Your task to perform on an android device: open device folders in google photos Image 0: 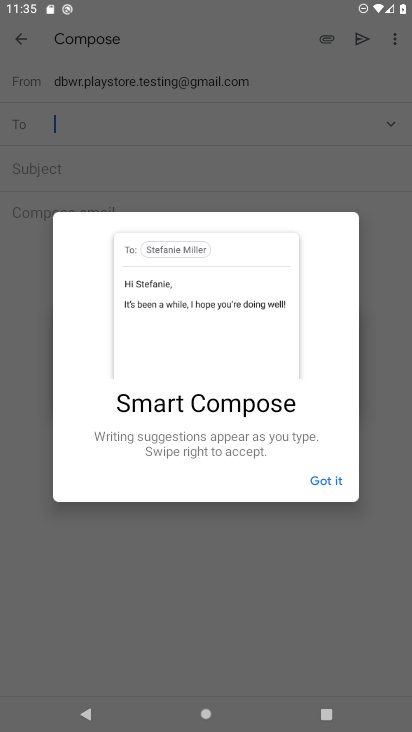
Step 0: press home button
Your task to perform on an android device: open device folders in google photos Image 1: 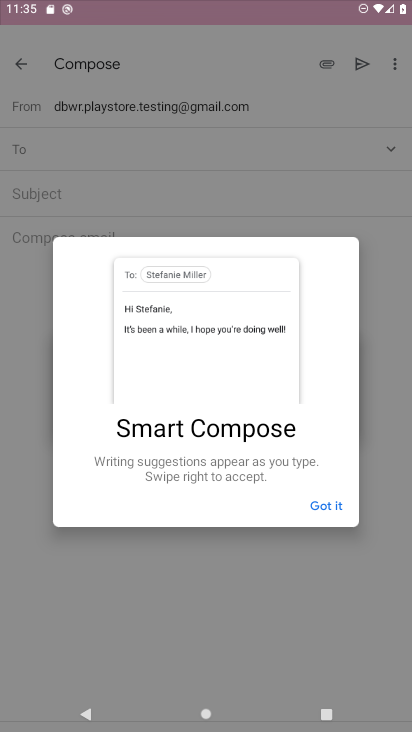
Step 1: press home button
Your task to perform on an android device: open device folders in google photos Image 2: 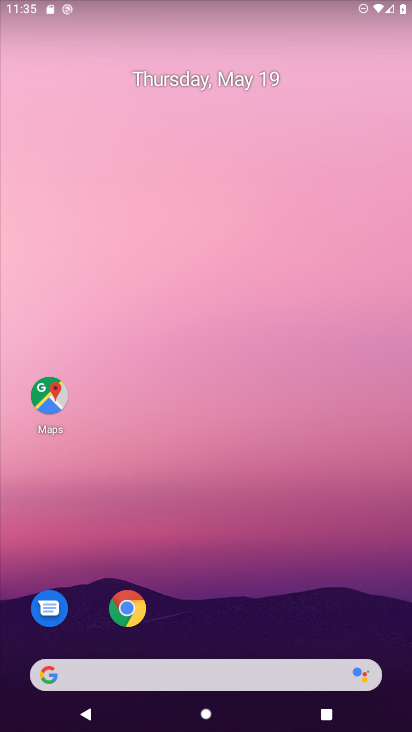
Step 2: drag from (330, 599) to (403, 321)
Your task to perform on an android device: open device folders in google photos Image 3: 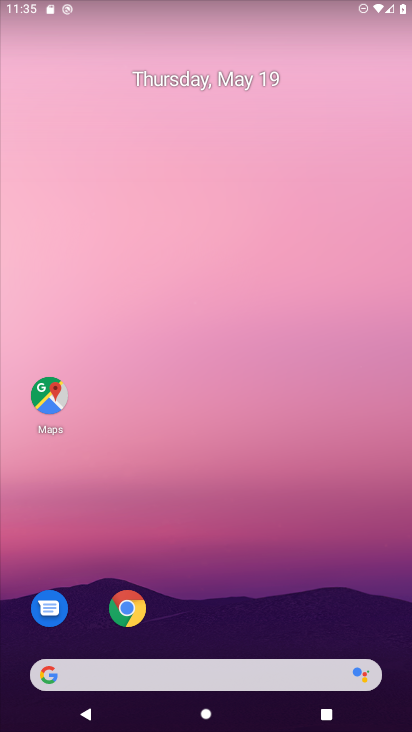
Step 3: drag from (285, 612) to (303, 15)
Your task to perform on an android device: open device folders in google photos Image 4: 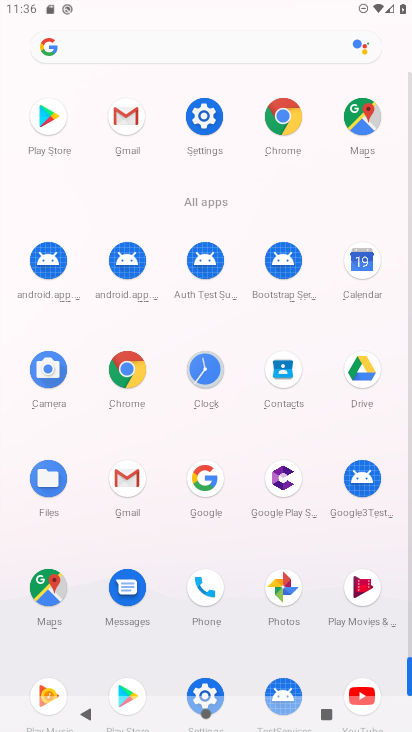
Step 4: click (298, 579)
Your task to perform on an android device: open device folders in google photos Image 5: 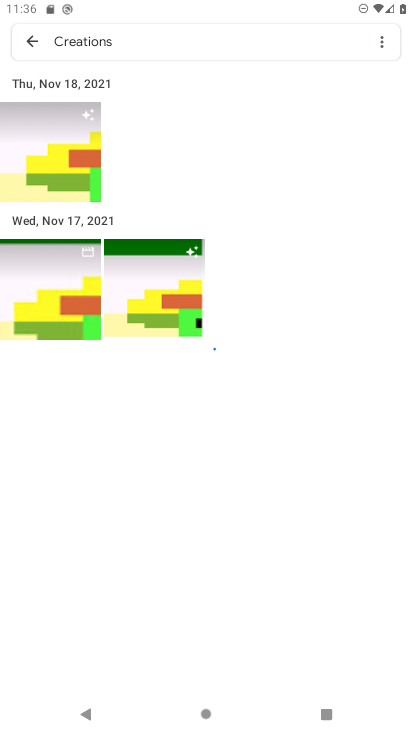
Step 5: click (27, 31)
Your task to perform on an android device: open device folders in google photos Image 6: 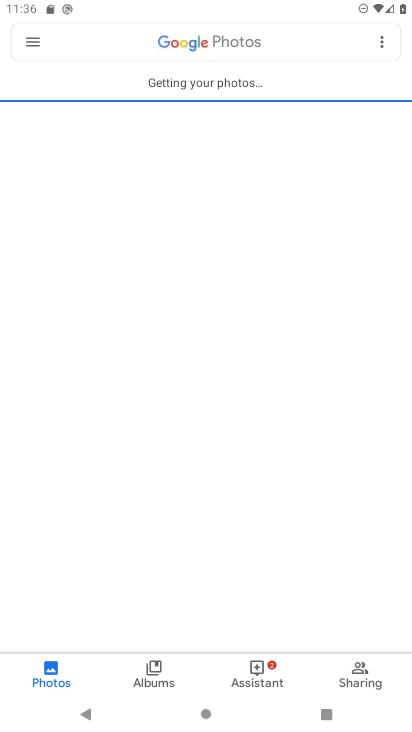
Step 6: click (27, 31)
Your task to perform on an android device: open device folders in google photos Image 7: 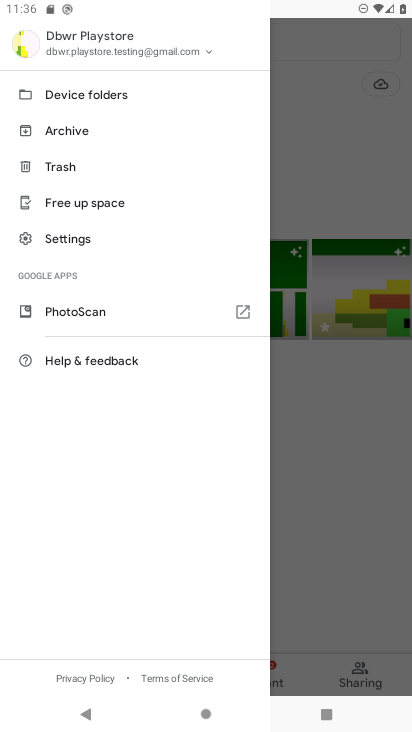
Step 7: click (59, 86)
Your task to perform on an android device: open device folders in google photos Image 8: 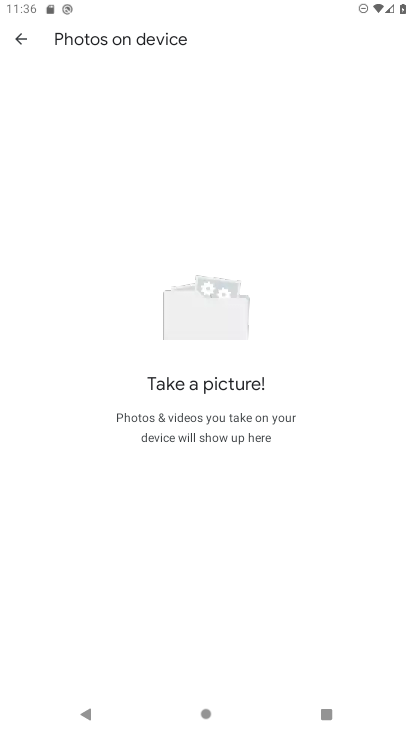
Step 8: task complete